Your task to perform on an android device: set the stopwatch Image 0: 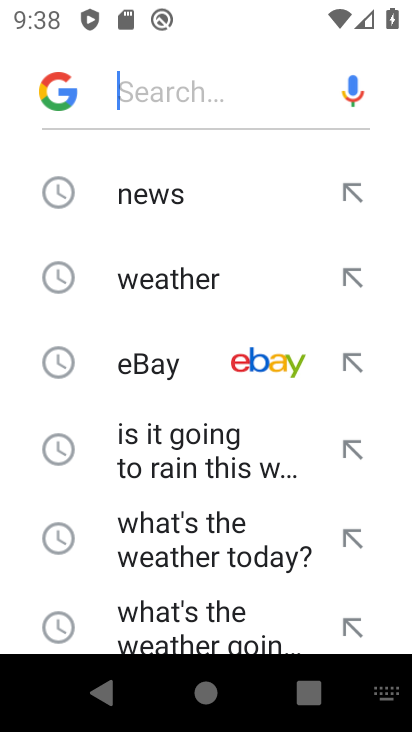
Step 0: press home button
Your task to perform on an android device: set the stopwatch Image 1: 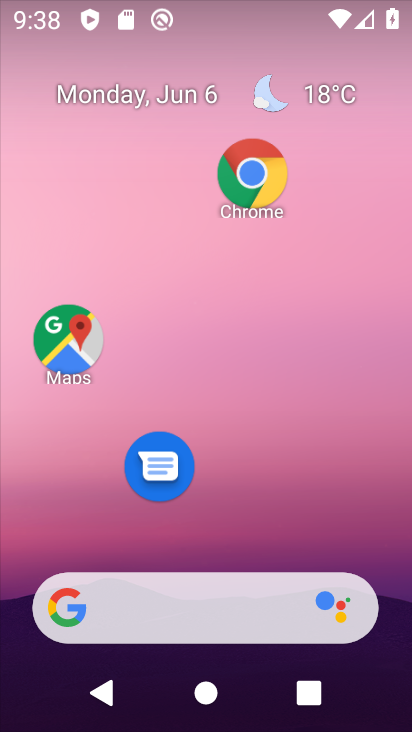
Step 1: drag from (180, 546) to (235, 86)
Your task to perform on an android device: set the stopwatch Image 2: 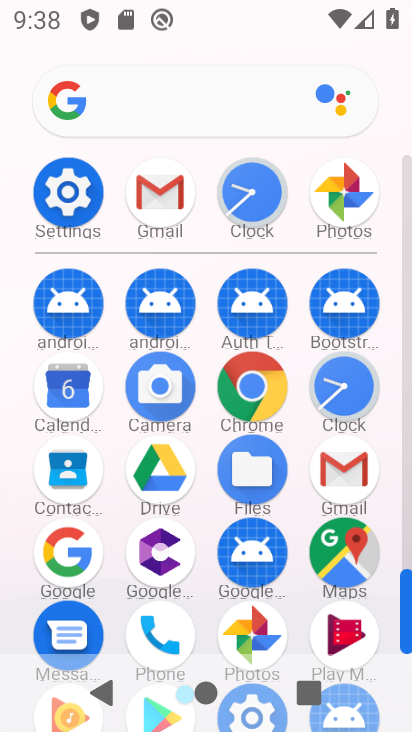
Step 2: click (356, 402)
Your task to perform on an android device: set the stopwatch Image 3: 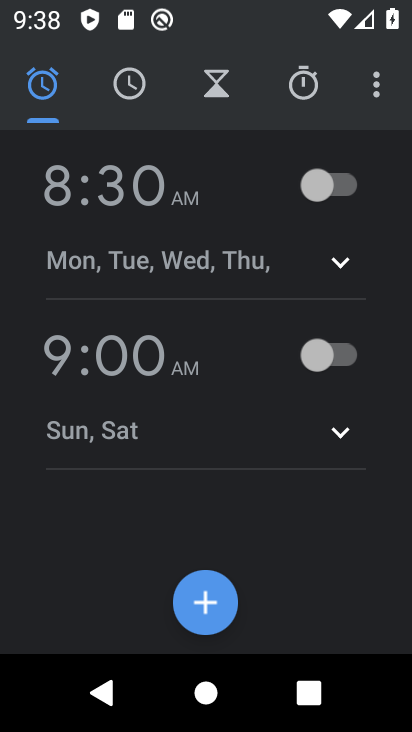
Step 3: click (306, 93)
Your task to perform on an android device: set the stopwatch Image 4: 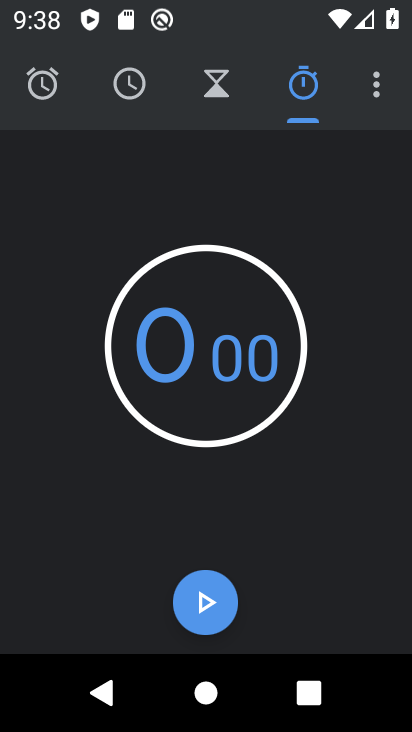
Step 4: click (209, 616)
Your task to perform on an android device: set the stopwatch Image 5: 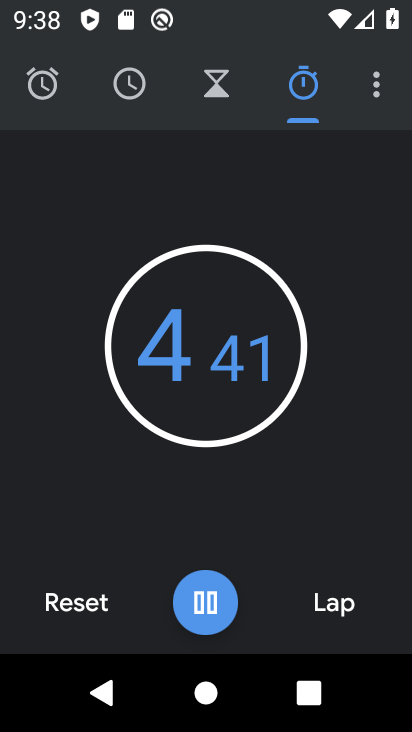
Step 5: click (209, 616)
Your task to perform on an android device: set the stopwatch Image 6: 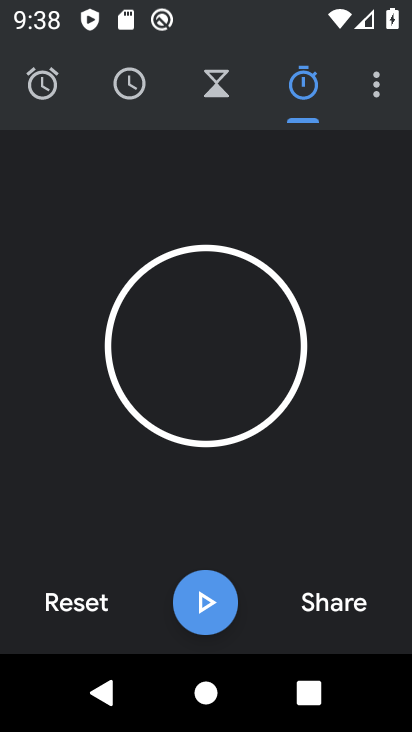
Step 6: task complete